Your task to perform on an android device: toggle data saver in the chrome app Image 0: 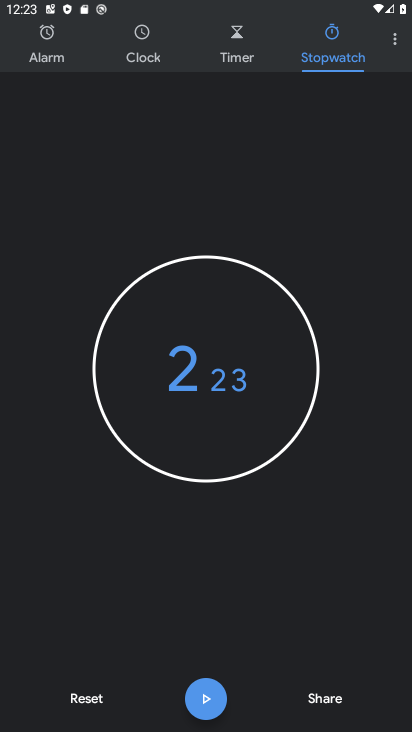
Step 0: press home button
Your task to perform on an android device: toggle data saver in the chrome app Image 1: 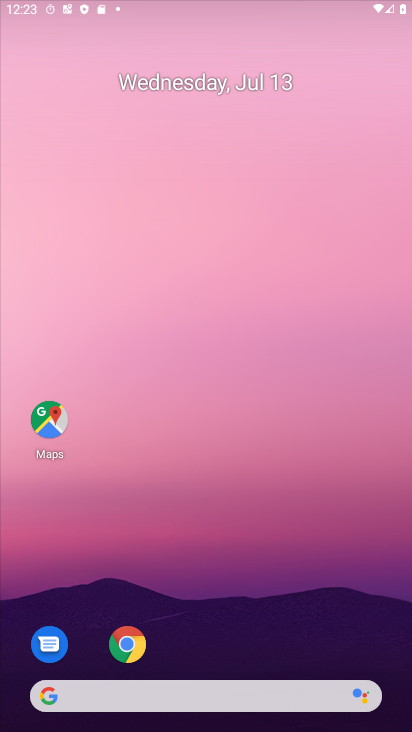
Step 1: drag from (206, 659) to (247, 92)
Your task to perform on an android device: toggle data saver in the chrome app Image 2: 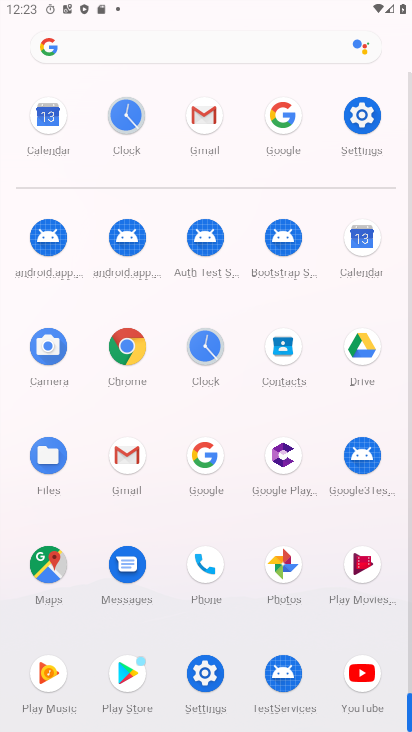
Step 2: click (126, 353)
Your task to perform on an android device: toggle data saver in the chrome app Image 3: 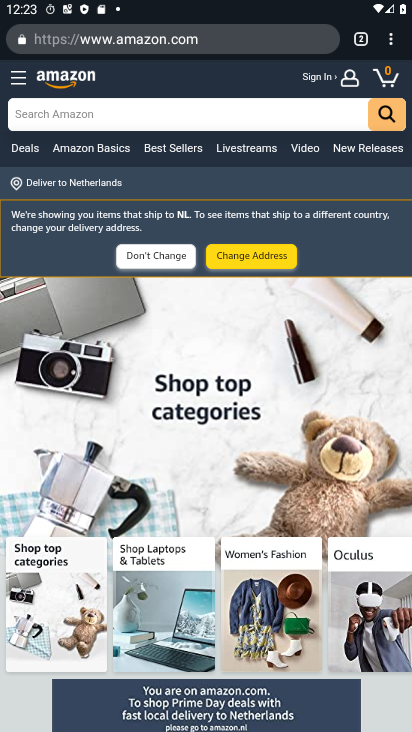
Step 3: click (389, 34)
Your task to perform on an android device: toggle data saver in the chrome app Image 4: 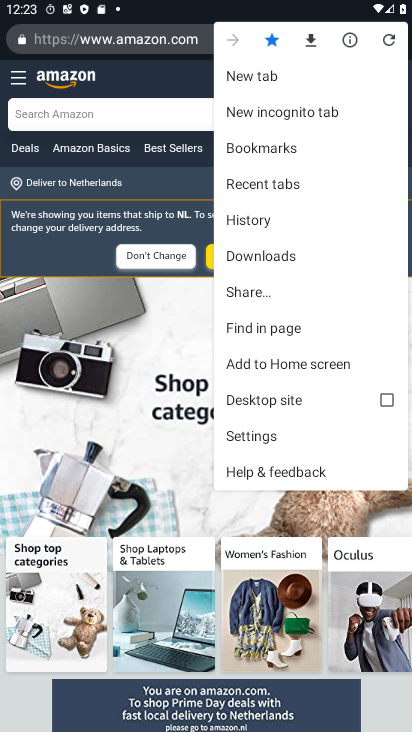
Step 4: click (275, 438)
Your task to perform on an android device: toggle data saver in the chrome app Image 5: 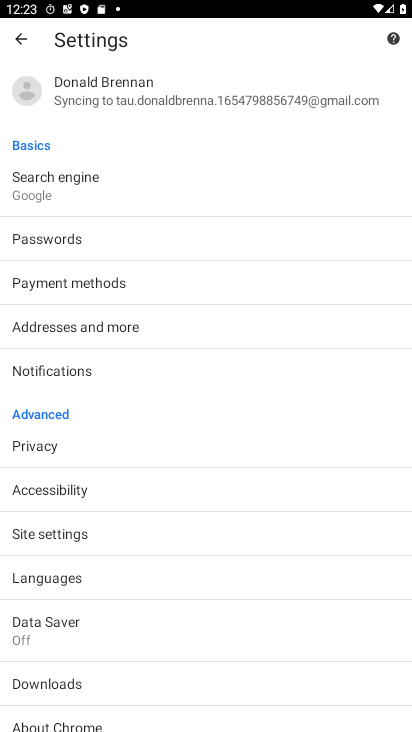
Step 5: click (65, 631)
Your task to perform on an android device: toggle data saver in the chrome app Image 6: 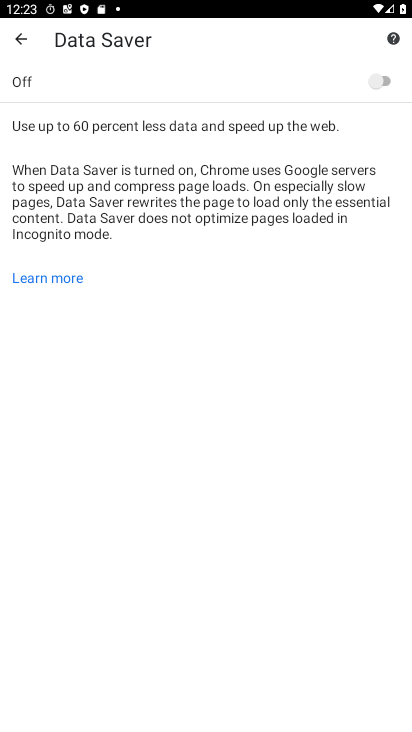
Step 6: click (383, 79)
Your task to perform on an android device: toggle data saver in the chrome app Image 7: 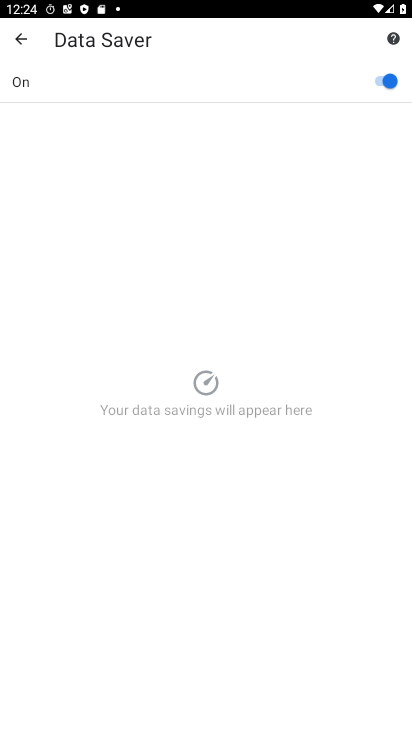
Step 7: task complete